Your task to perform on an android device: toggle sleep mode Image 0: 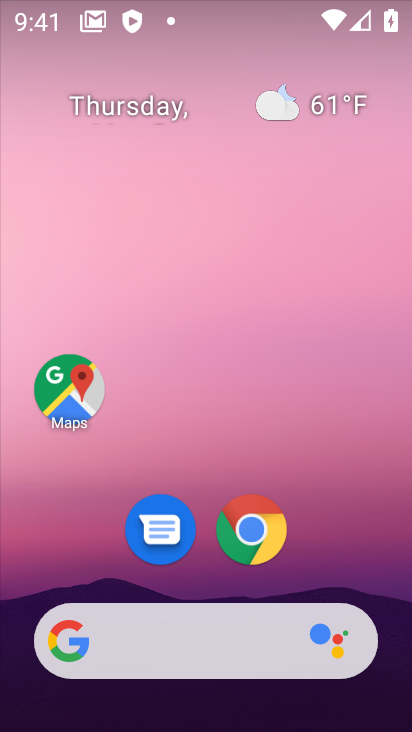
Step 0: drag from (372, 531) to (330, 339)
Your task to perform on an android device: toggle sleep mode Image 1: 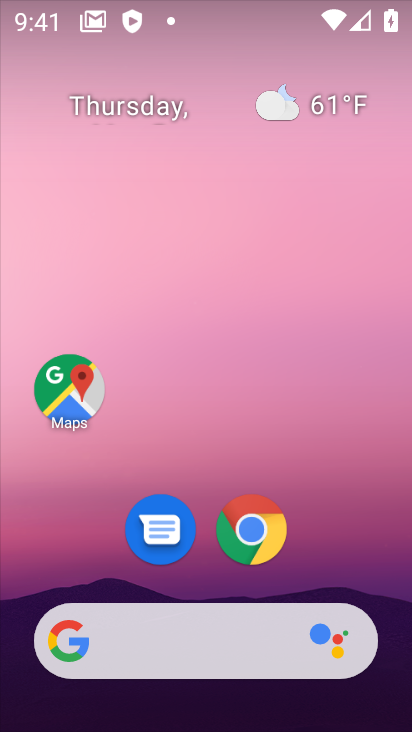
Step 1: drag from (373, 573) to (330, 219)
Your task to perform on an android device: toggle sleep mode Image 2: 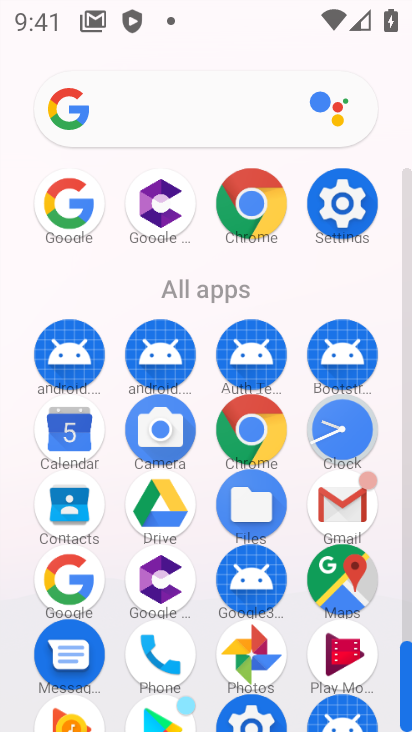
Step 2: click (338, 210)
Your task to perform on an android device: toggle sleep mode Image 3: 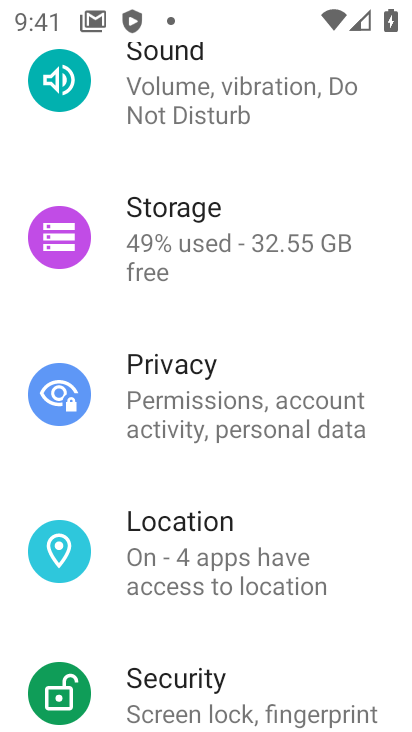
Step 3: drag from (305, 159) to (334, 640)
Your task to perform on an android device: toggle sleep mode Image 4: 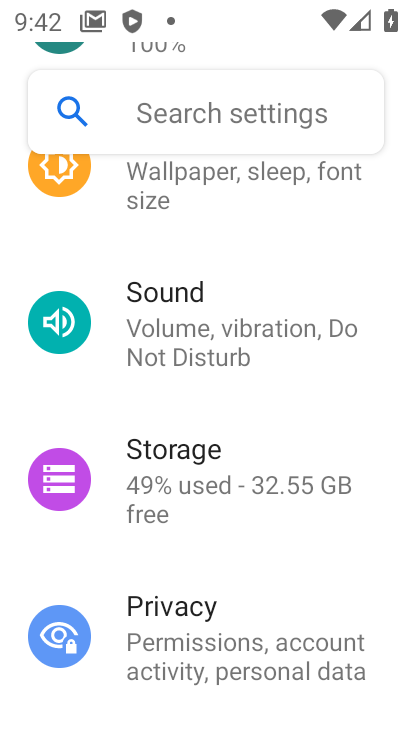
Step 4: drag from (280, 265) to (347, 608)
Your task to perform on an android device: toggle sleep mode Image 5: 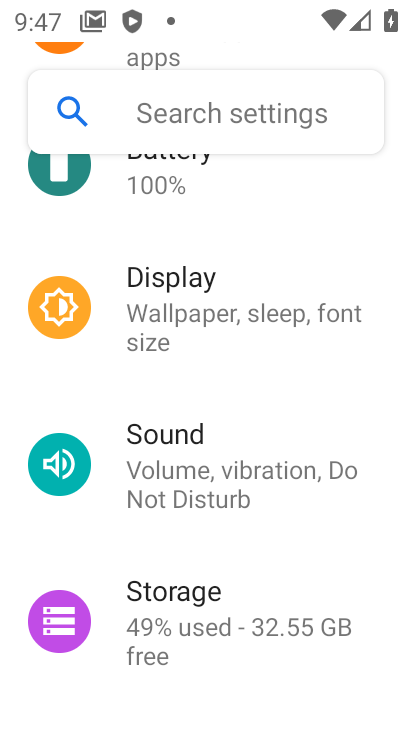
Step 5: drag from (306, 176) to (356, 620)
Your task to perform on an android device: toggle sleep mode Image 6: 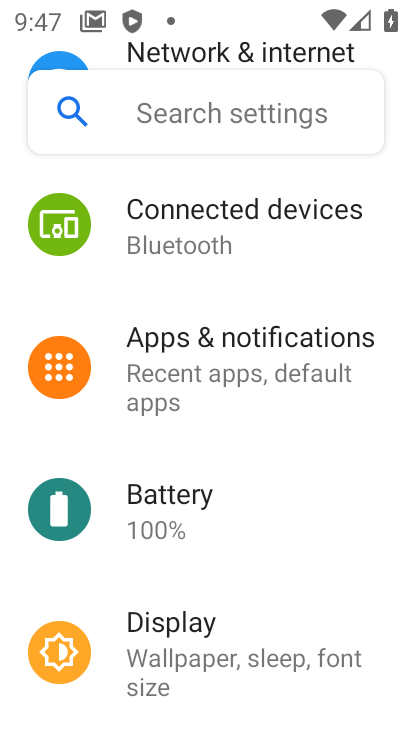
Step 6: click (229, 637)
Your task to perform on an android device: toggle sleep mode Image 7: 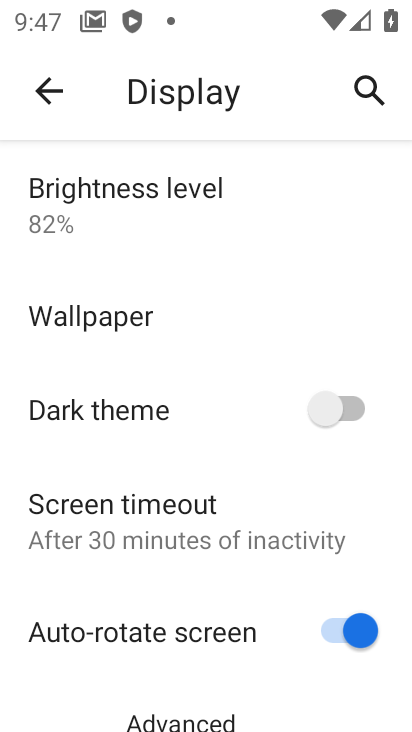
Step 7: click (79, 525)
Your task to perform on an android device: toggle sleep mode Image 8: 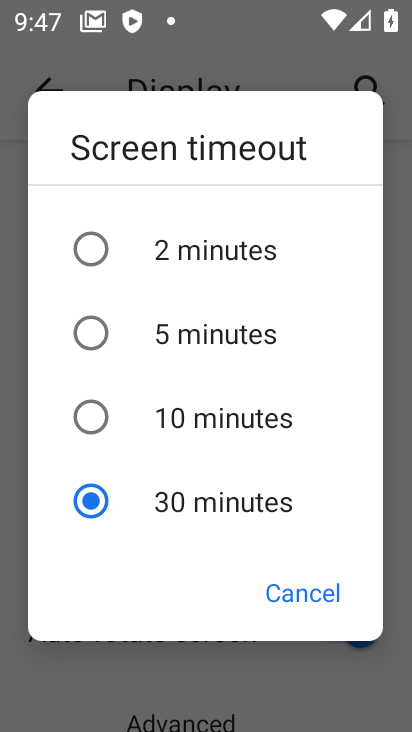
Step 8: click (80, 341)
Your task to perform on an android device: toggle sleep mode Image 9: 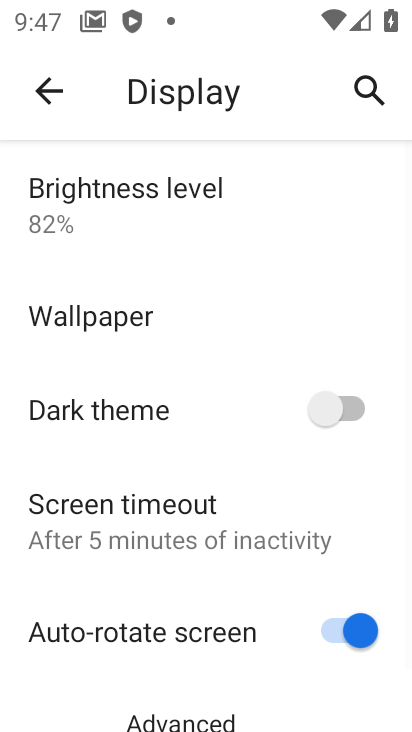
Step 9: task complete